Your task to perform on an android device: find snoozed emails in the gmail app Image 0: 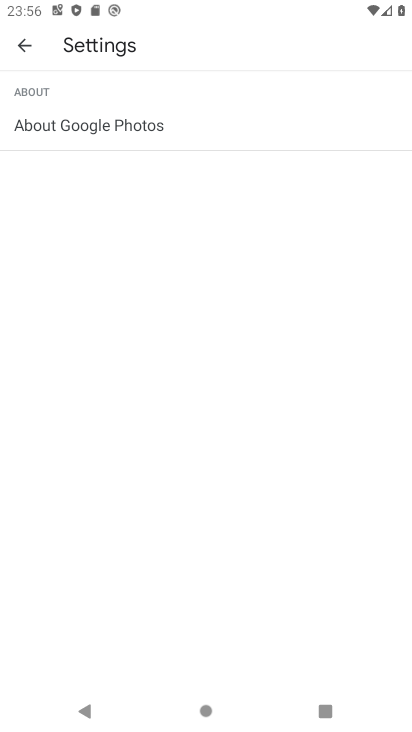
Step 0: press home button
Your task to perform on an android device: find snoozed emails in the gmail app Image 1: 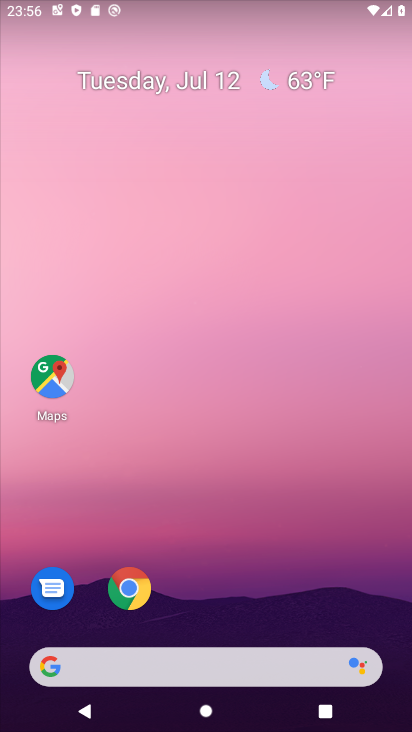
Step 1: drag from (38, 636) to (126, 212)
Your task to perform on an android device: find snoozed emails in the gmail app Image 2: 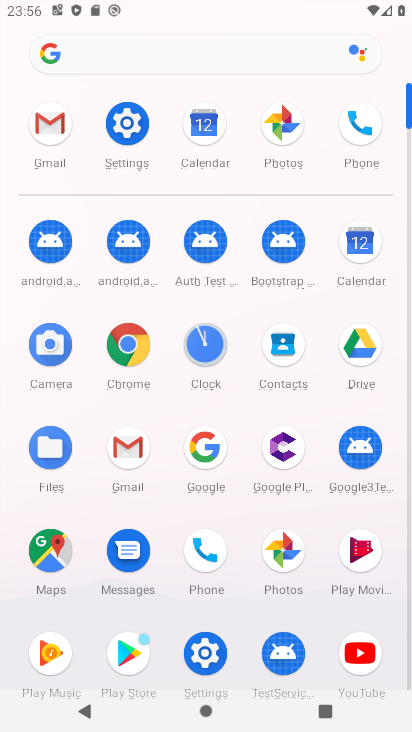
Step 2: click (126, 464)
Your task to perform on an android device: find snoozed emails in the gmail app Image 3: 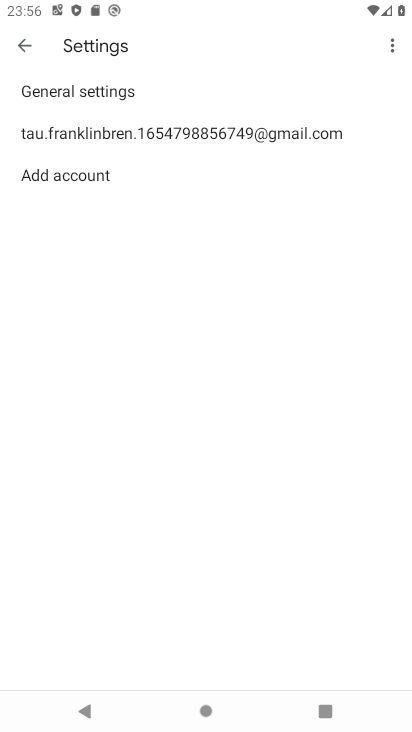
Step 3: click (28, 46)
Your task to perform on an android device: find snoozed emails in the gmail app Image 4: 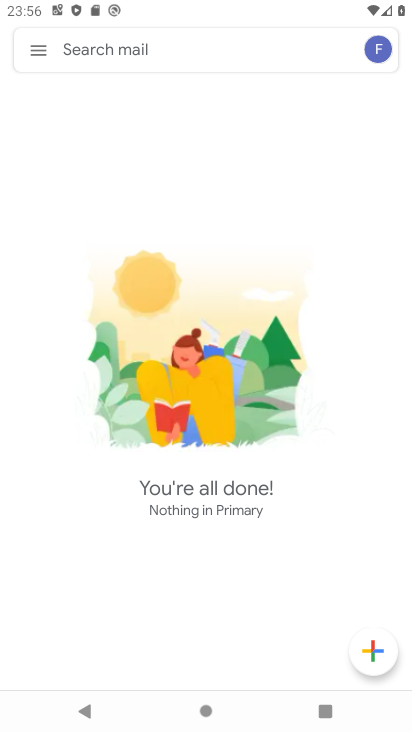
Step 4: click (32, 49)
Your task to perform on an android device: find snoozed emails in the gmail app Image 5: 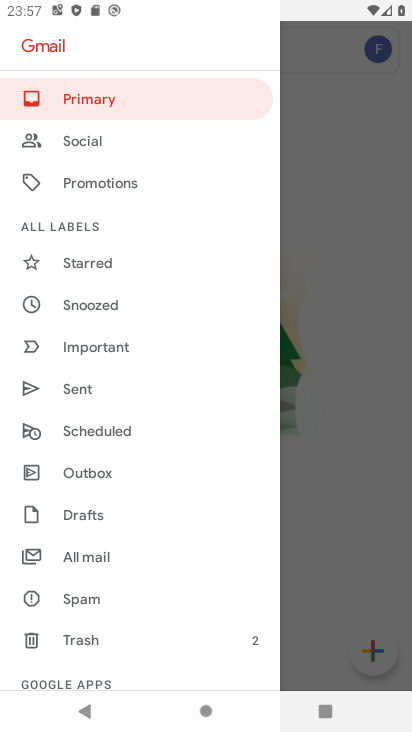
Step 5: click (97, 307)
Your task to perform on an android device: find snoozed emails in the gmail app Image 6: 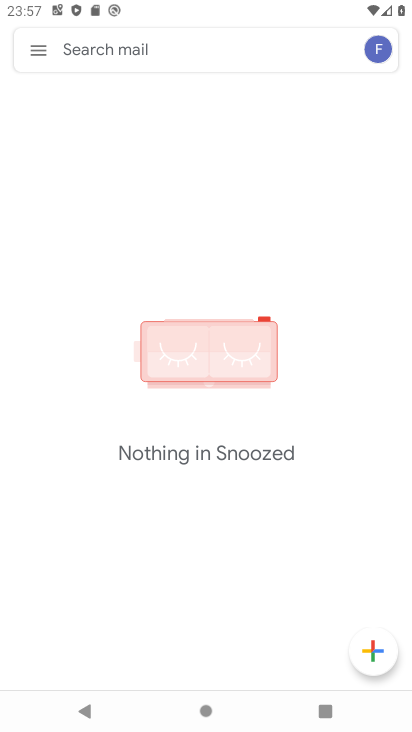
Step 6: task complete